Your task to perform on an android device: Open Google Image 0: 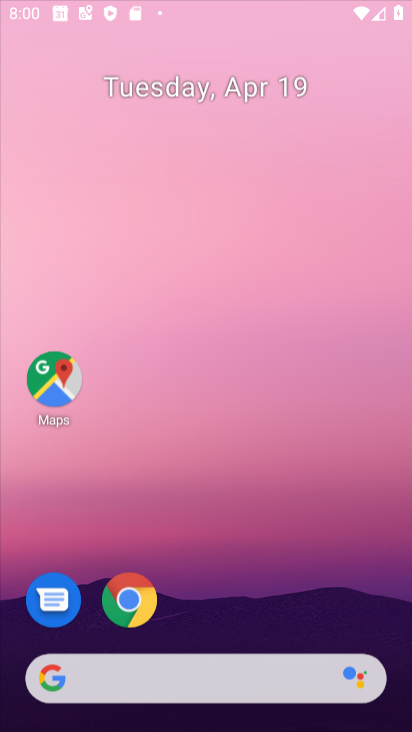
Step 0: click (293, 100)
Your task to perform on an android device: Open Google Image 1: 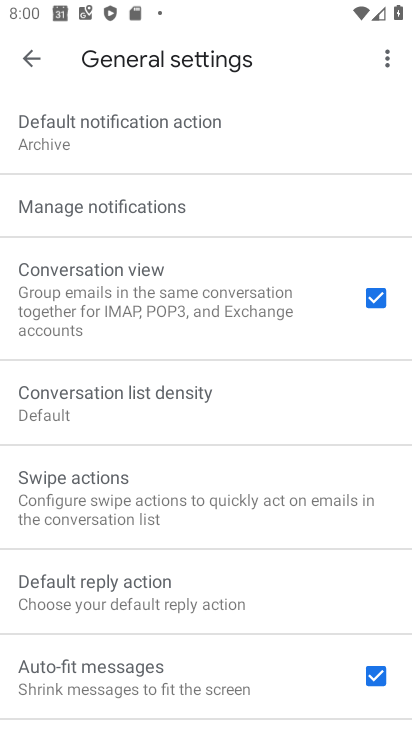
Step 1: press home button
Your task to perform on an android device: Open Google Image 2: 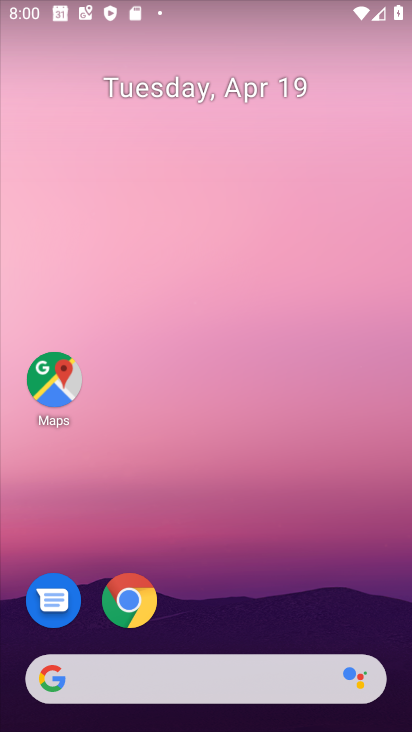
Step 2: drag from (259, 611) to (268, 57)
Your task to perform on an android device: Open Google Image 3: 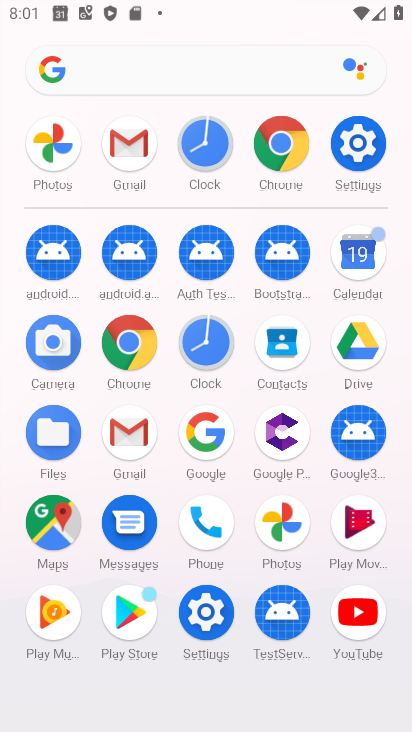
Step 3: click (206, 428)
Your task to perform on an android device: Open Google Image 4: 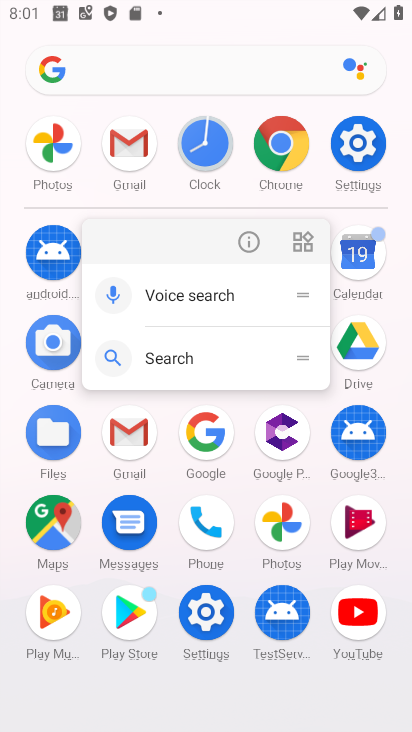
Step 4: click (205, 431)
Your task to perform on an android device: Open Google Image 5: 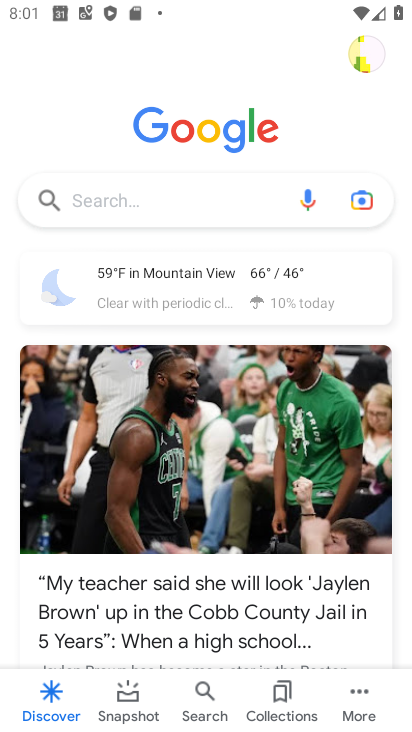
Step 5: task complete